Your task to perform on an android device: Go to eBay Image 0: 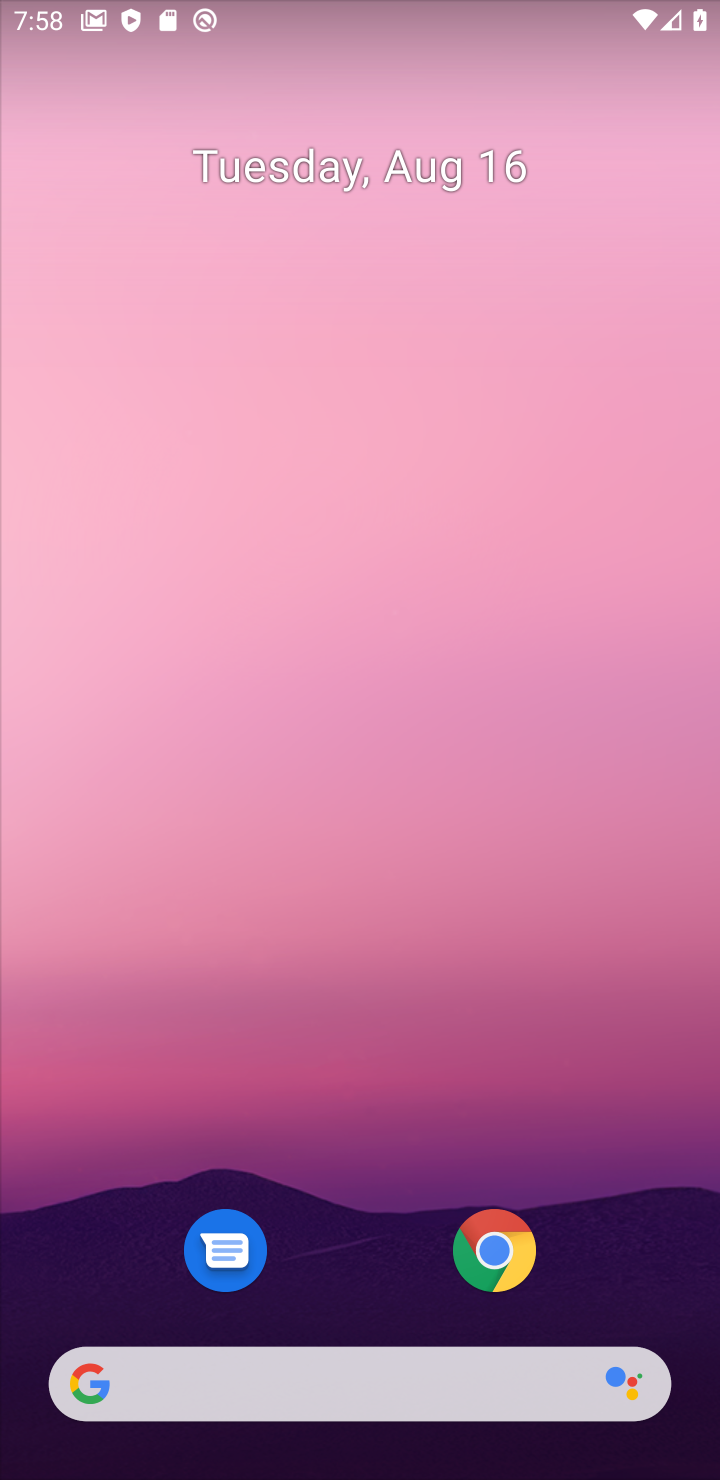
Step 0: drag from (385, 1211) to (213, 0)
Your task to perform on an android device: Go to eBay Image 1: 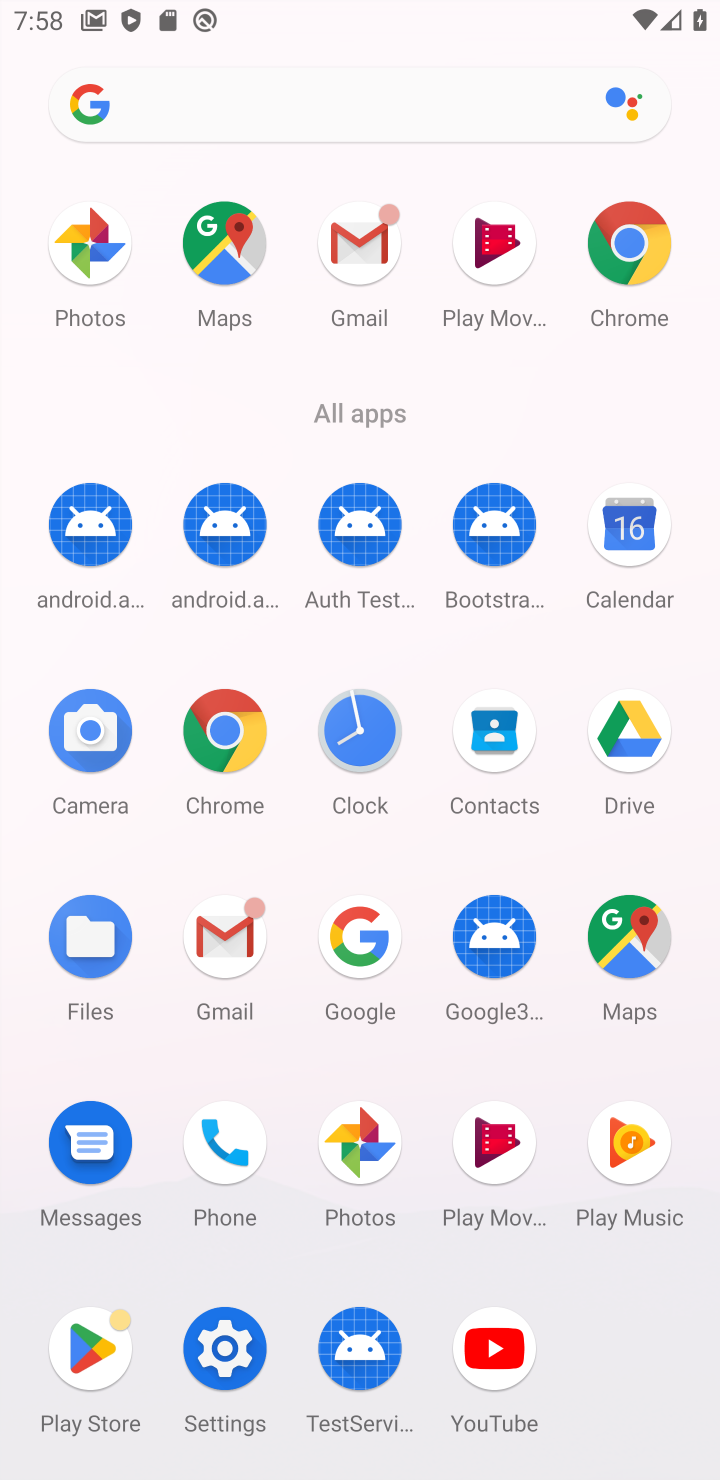
Step 1: click (626, 248)
Your task to perform on an android device: Go to eBay Image 2: 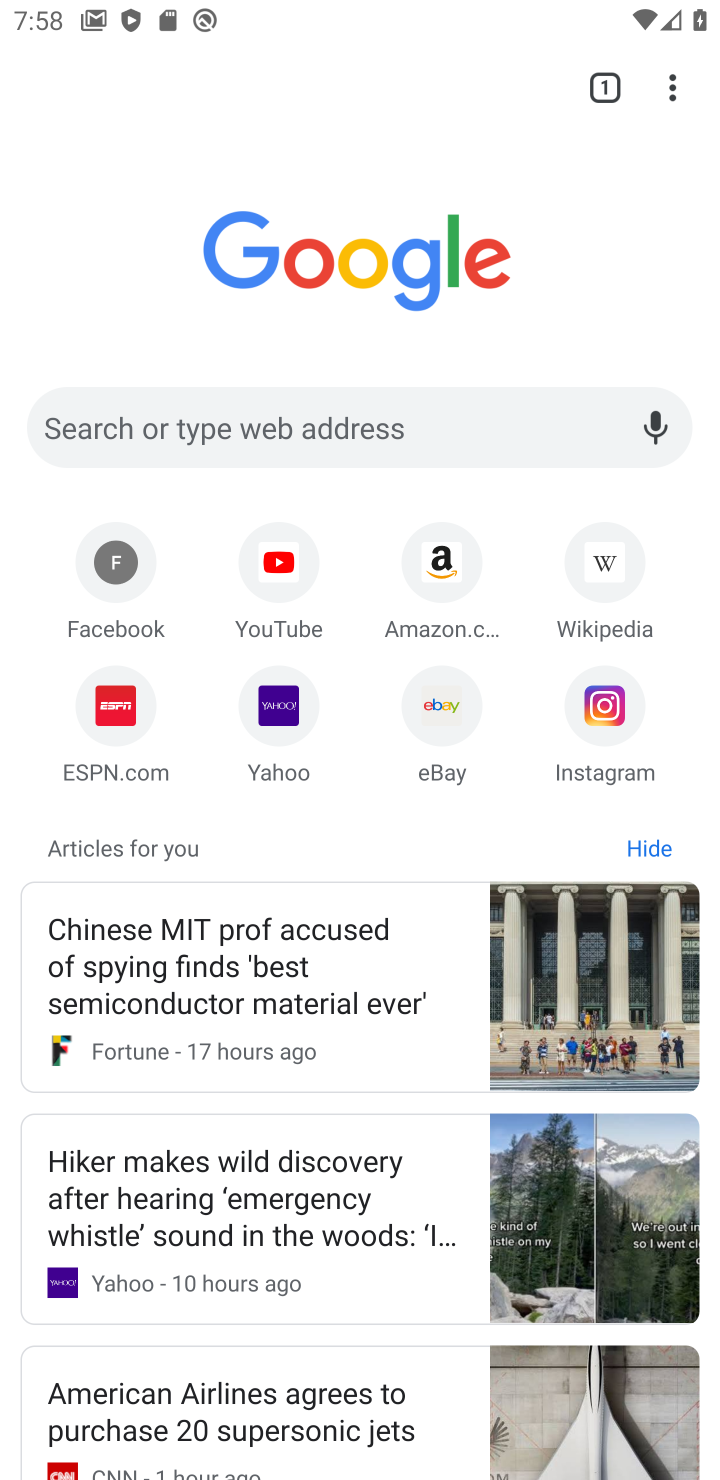
Step 2: click (446, 696)
Your task to perform on an android device: Go to eBay Image 3: 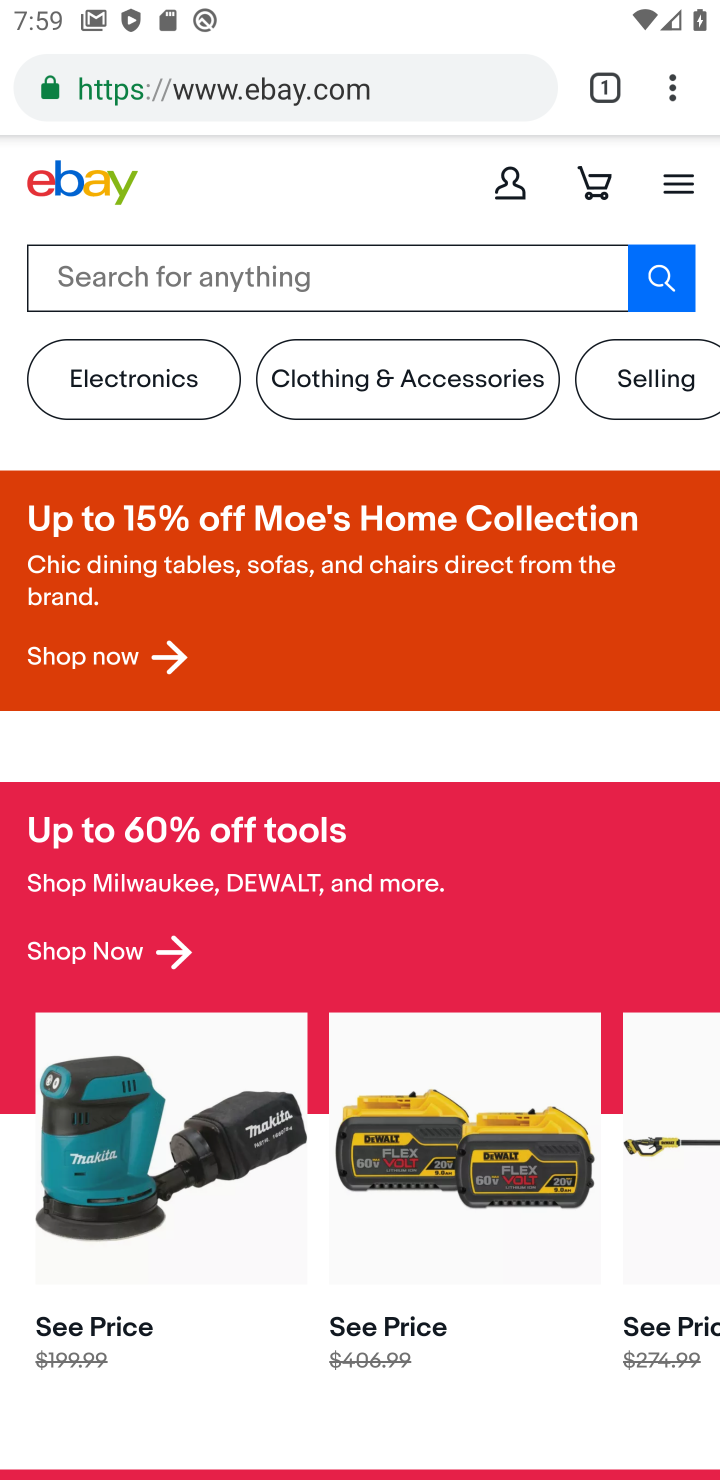
Step 3: task complete